Your task to perform on an android device: Do I have any events today? Image 0: 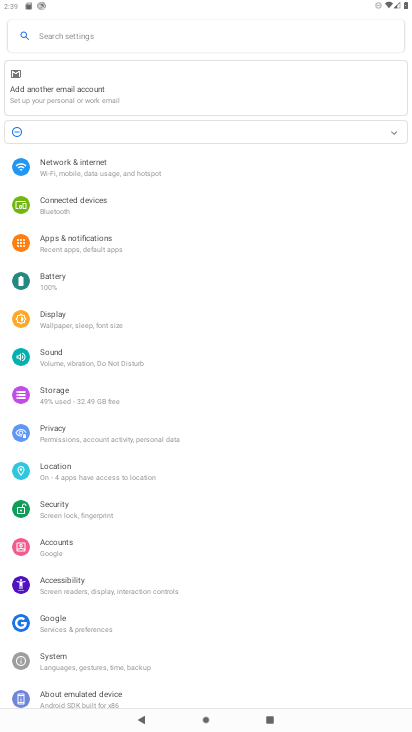
Step 0: press home button
Your task to perform on an android device: Do I have any events today? Image 1: 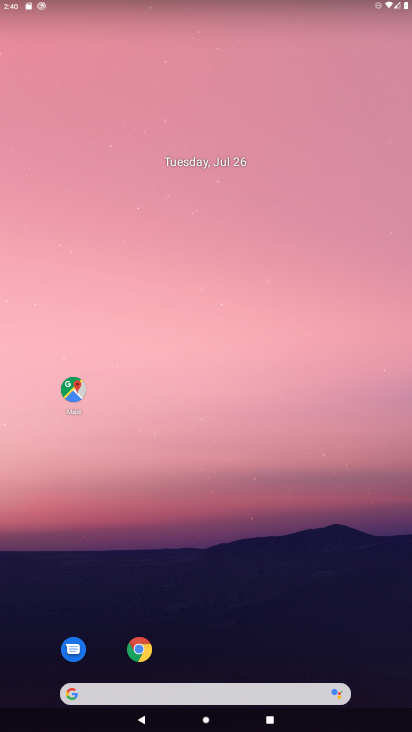
Step 1: drag from (206, 691) to (160, 91)
Your task to perform on an android device: Do I have any events today? Image 2: 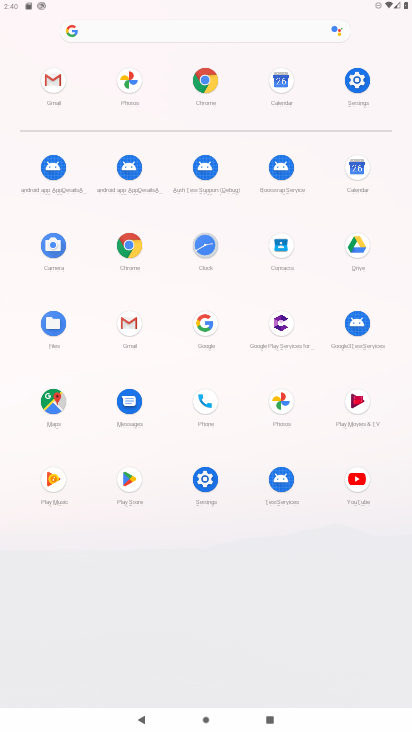
Step 2: click (367, 175)
Your task to perform on an android device: Do I have any events today? Image 3: 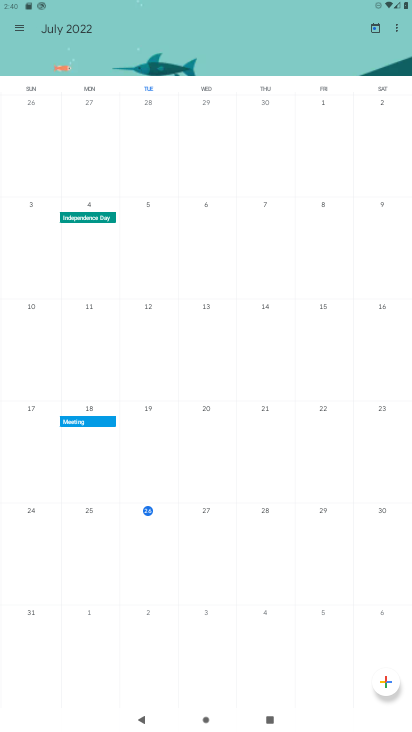
Step 3: click (18, 24)
Your task to perform on an android device: Do I have any events today? Image 4: 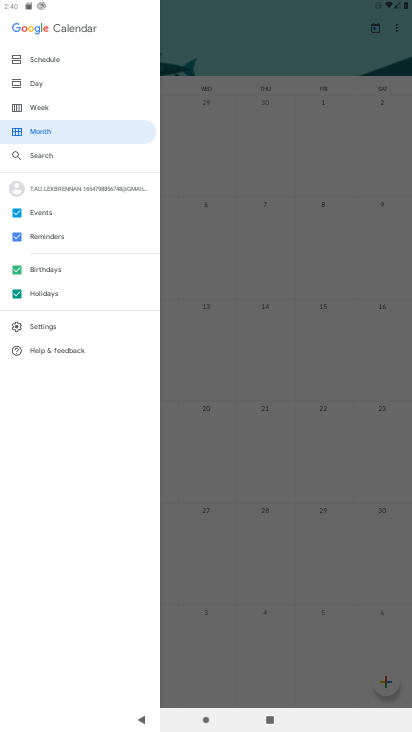
Step 4: click (59, 52)
Your task to perform on an android device: Do I have any events today? Image 5: 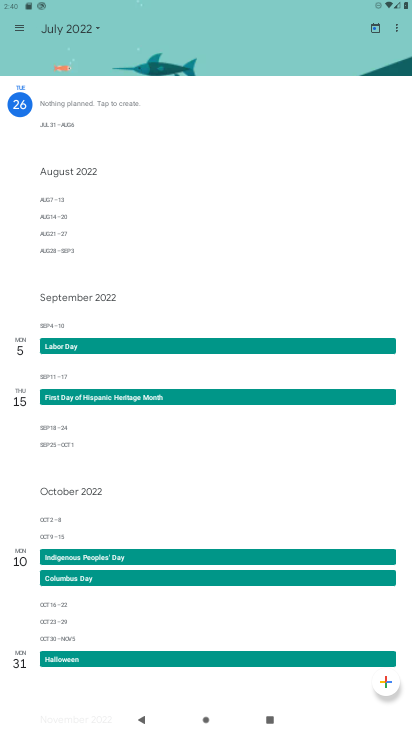
Step 5: task complete